Your task to perform on an android device: install app "Google Drive" Image 0: 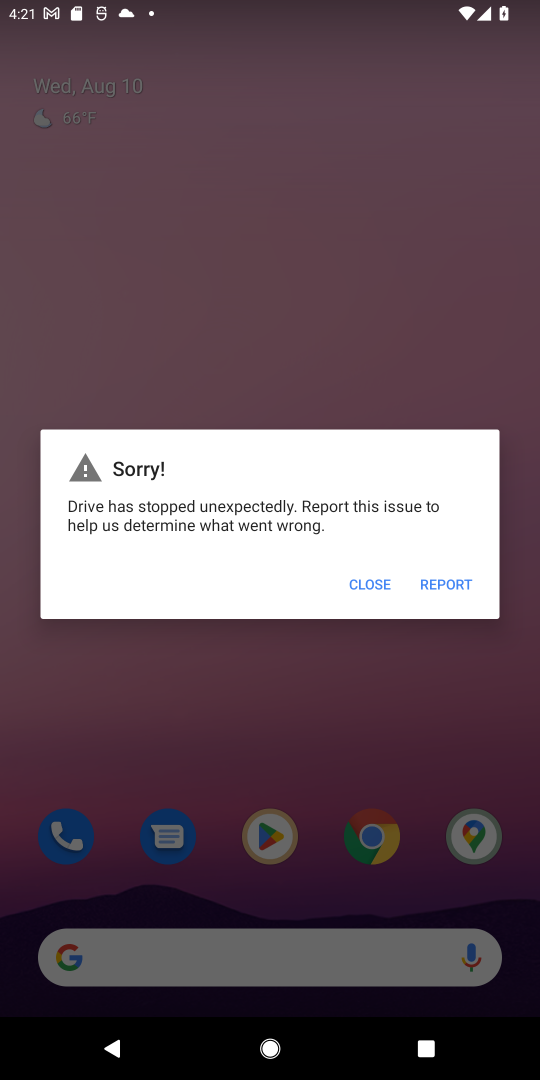
Step 0: press home button
Your task to perform on an android device: install app "Google Drive" Image 1: 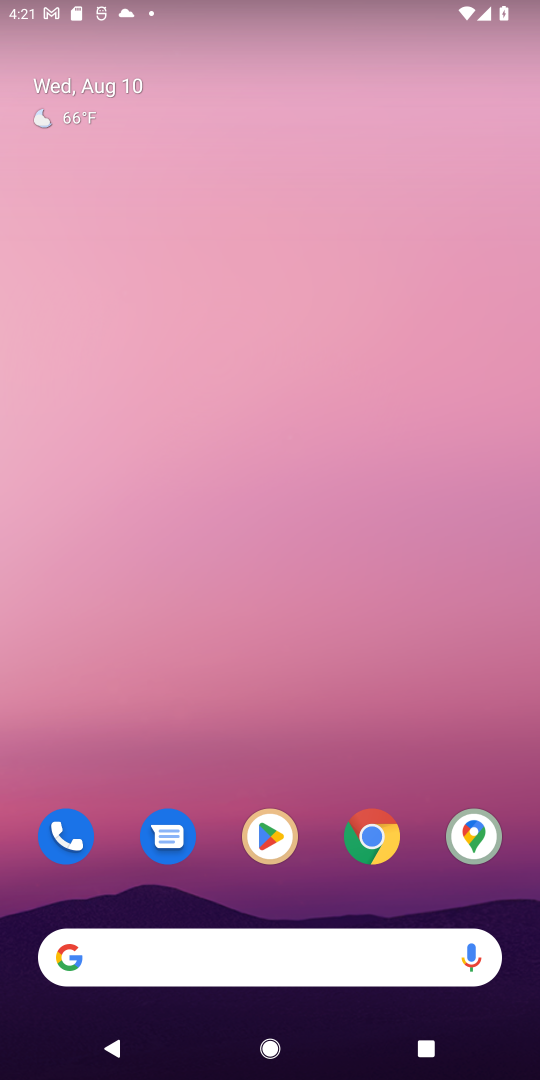
Step 1: drag from (200, 913) to (258, 220)
Your task to perform on an android device: install app "Google Drive" Image 2: 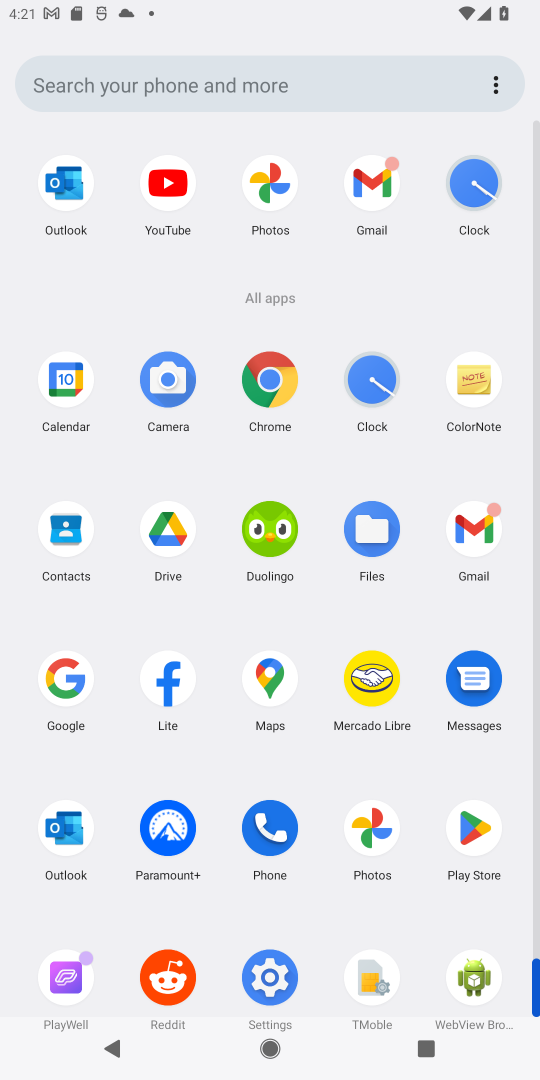
Step 2: click (488, 823)
Your task to perform on an android device: install app "Google Drive" Image 3: 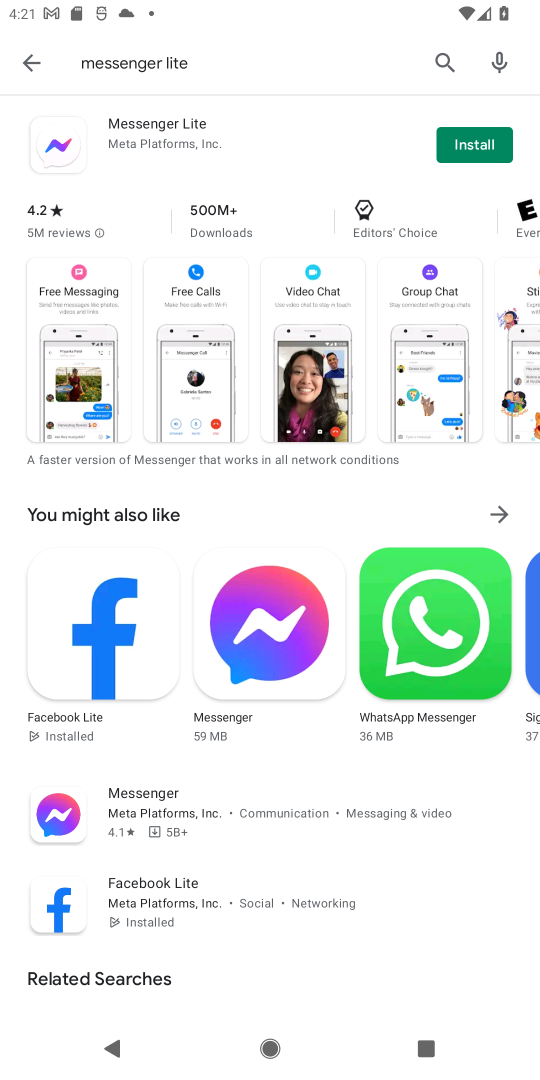
Step 3: click (37, 76)
Your task to perform on an android device: install app "Google Drive" Image 4: 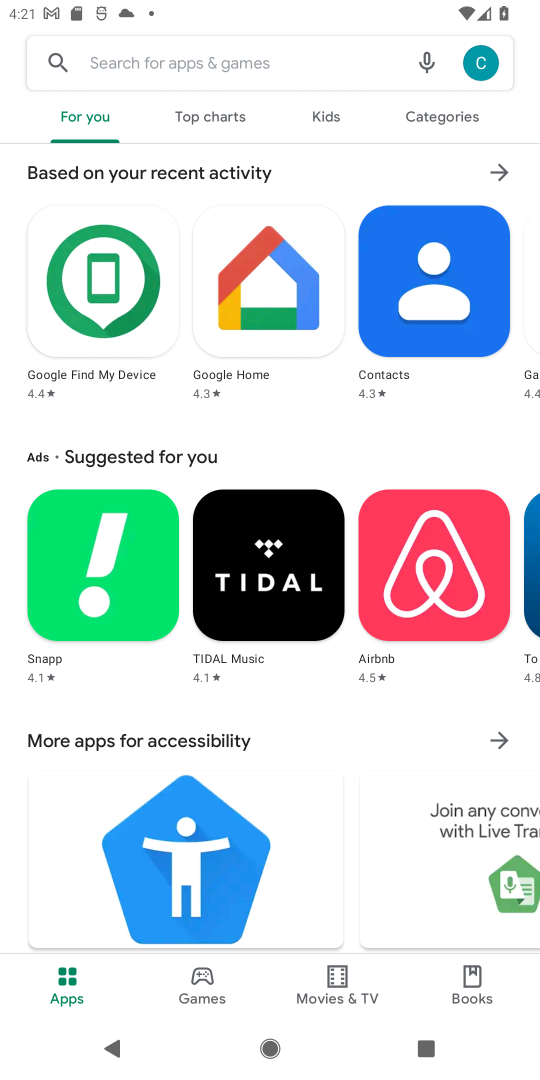
Step 4: click (210, 49)
Your task to perform on an android device: install app "Google Drive" Image 5: 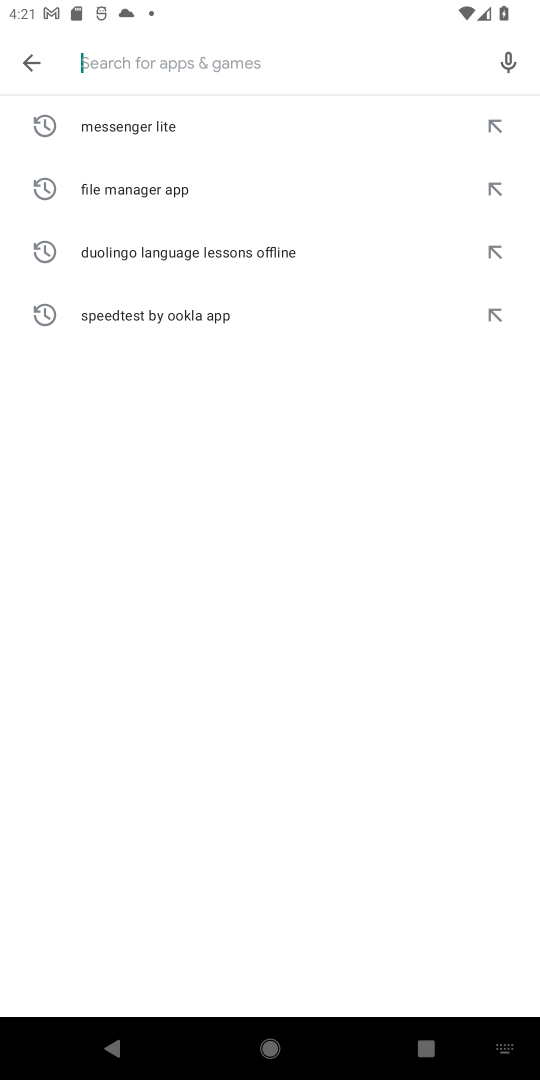
Step 5: type "google drive "
Your task to perform on an android device: install app "Google Drive" Image 6: 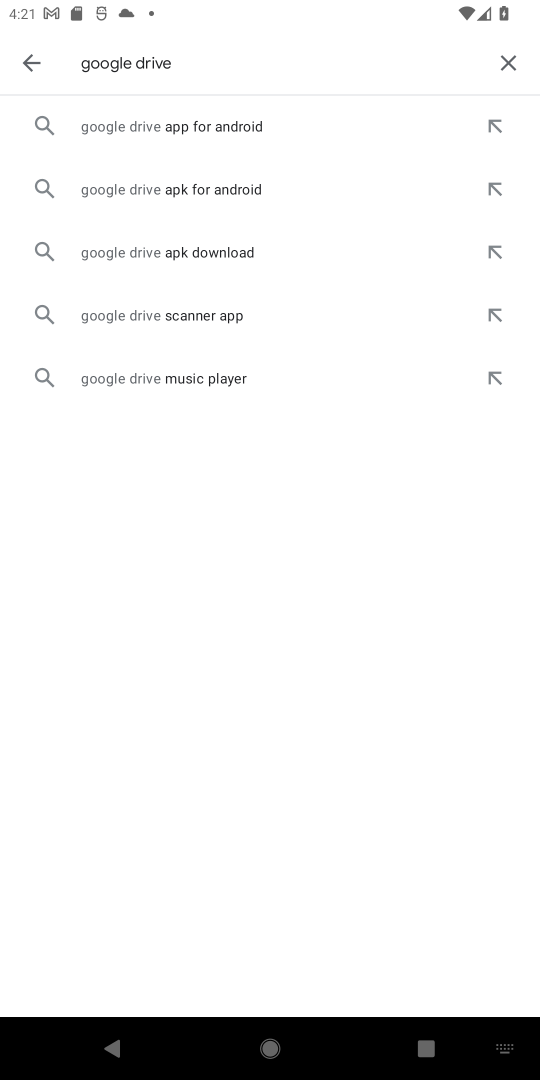
Step 6: click (198, 130)
Your task to perform on an android device: install app "Google Drive" Image 7: 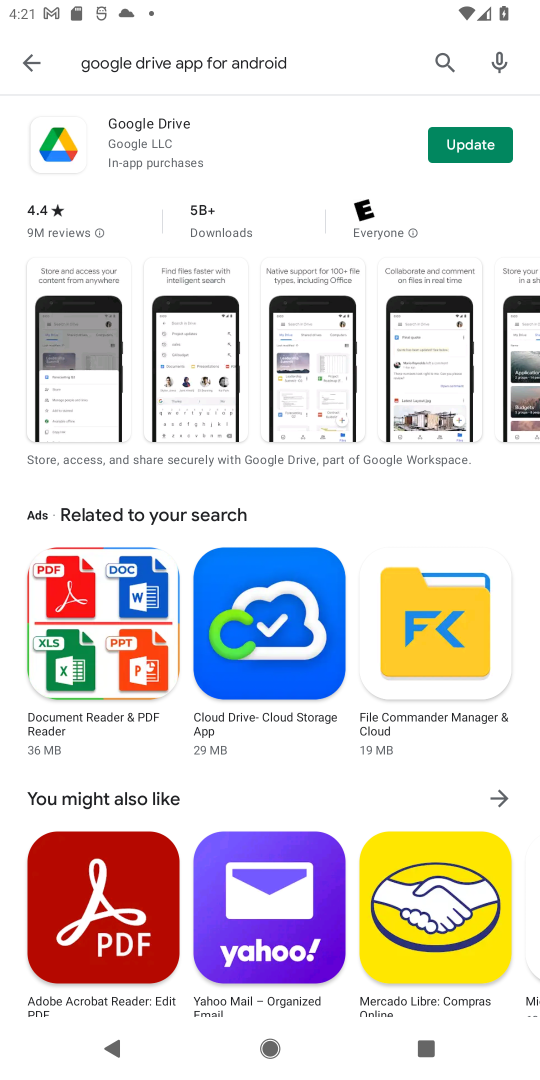
Step 7: click (465, 153)
Your task to perform on an android device: install app "Google Drive" Image 8: 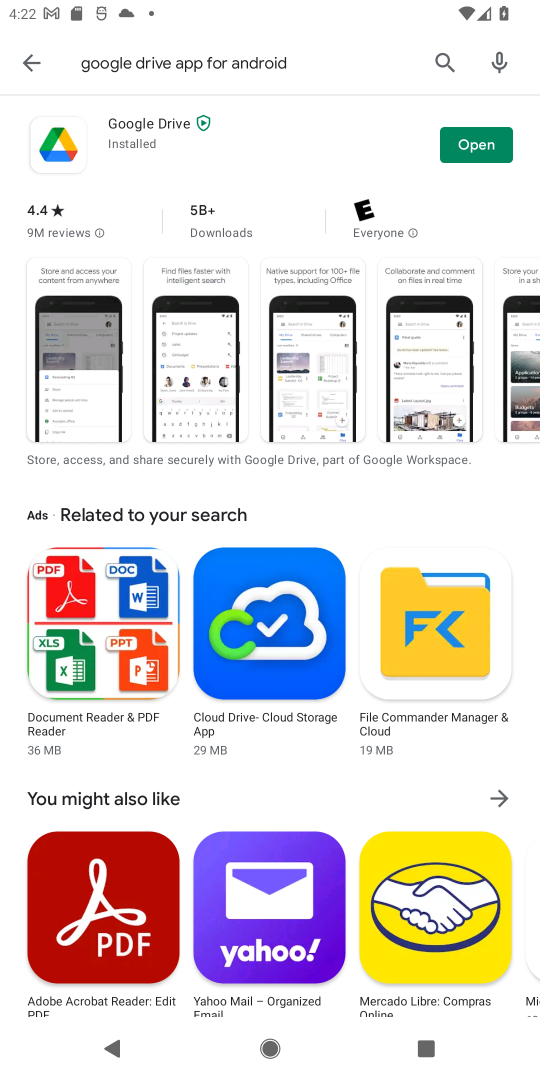
Step 8: click (465, 153)
Your task to perform on an android device: install app "Google Drive" Image 9: 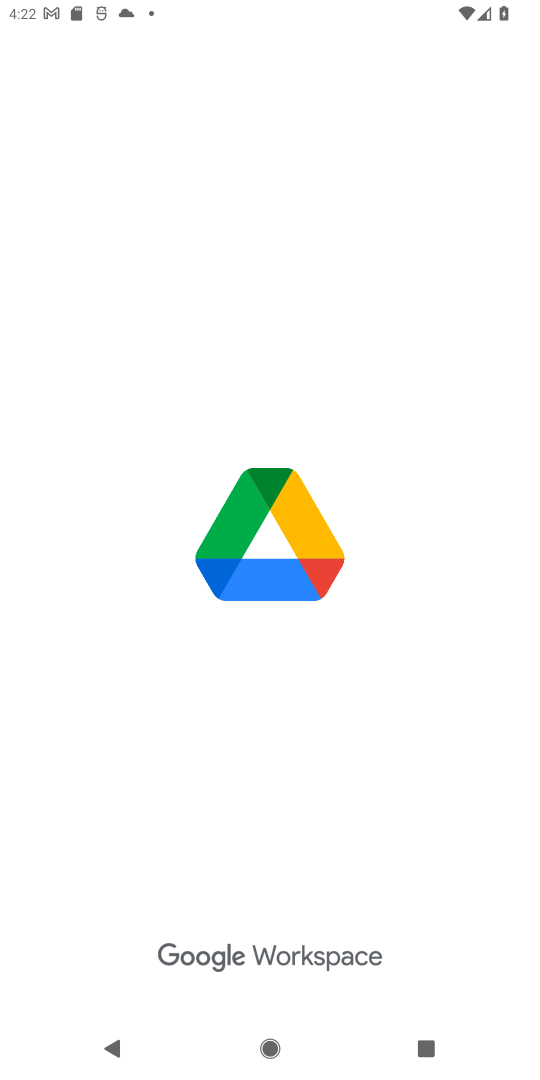
Step 9: task complete